Your task to perform on an android device: Search for seafood restaurants on Google Maps Image 0: 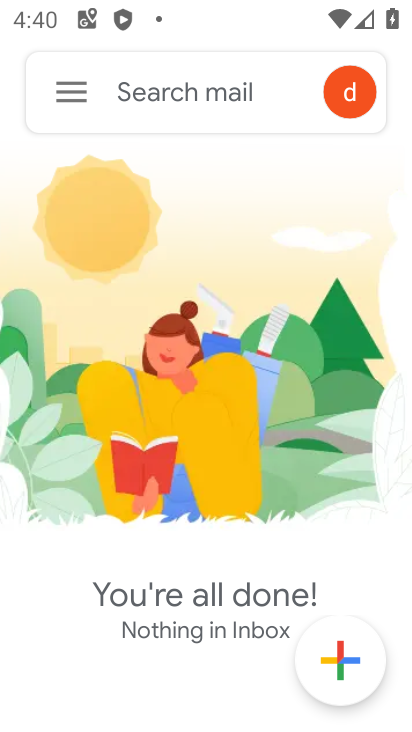
Step 0: press home button
Your task to perform on an android device: Search for seafood restaurants on Google Maps Image 1: 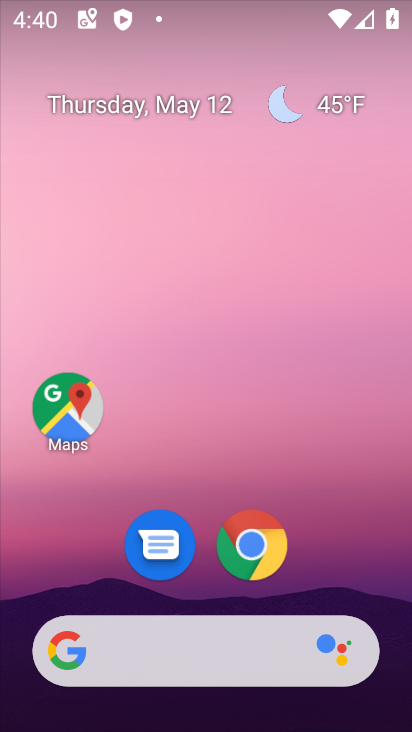
Step 1: click (48, 400)
Your task to perform on an android device: Search for seafood restaurants on Google Maps Image 2: 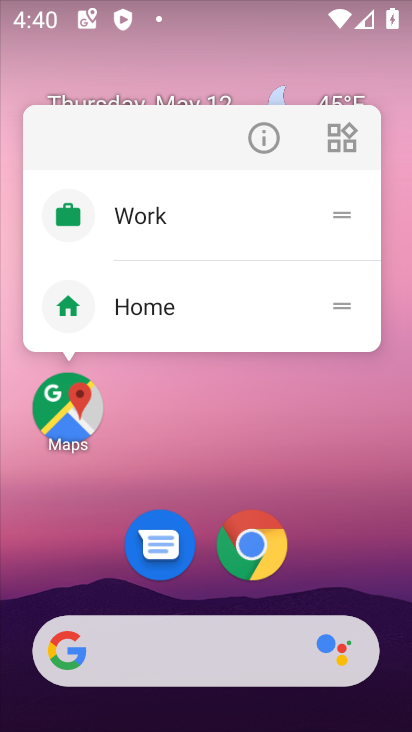
Step 2: click (61, 409)
Your task to perform on an android device: Search for seafood restaurants on Google Maps Image 3: 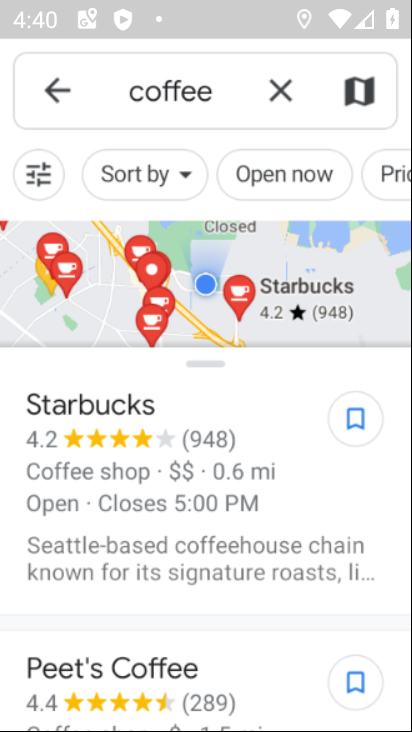
Step 3: click (213, 88)
Your task to perform on an android device: Search for seafood restaurants on Google Maps Image 4: 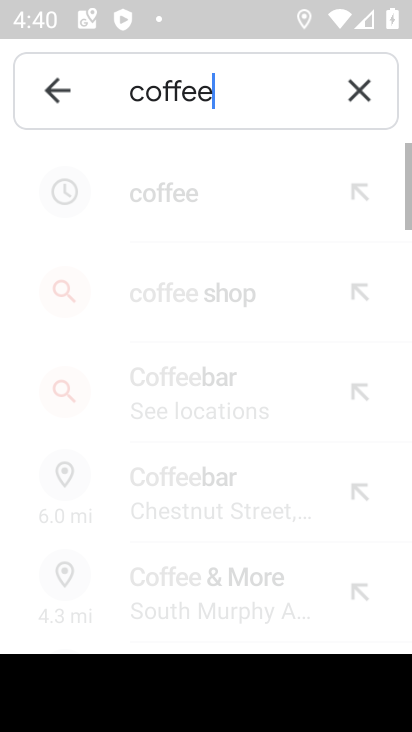
Step 4: click (363, 87)
Your task to perform on an android device: Search for seafood restaurants on Google Maps Image 5: 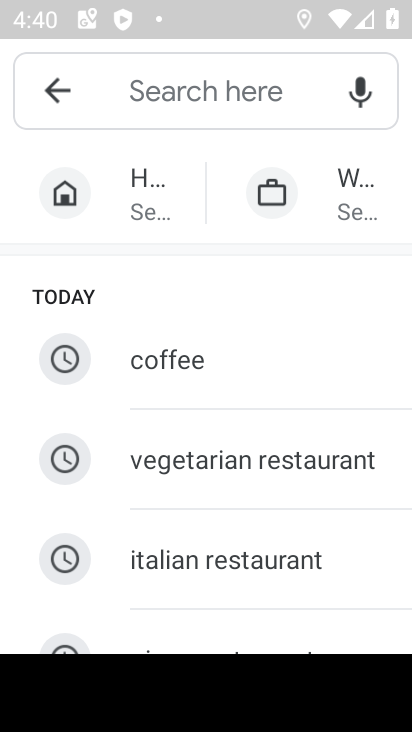
Step 5: type "seafood restaurants"
Your task to perform on an android device: Search for seafood restaurants on Google Maps Image 6: 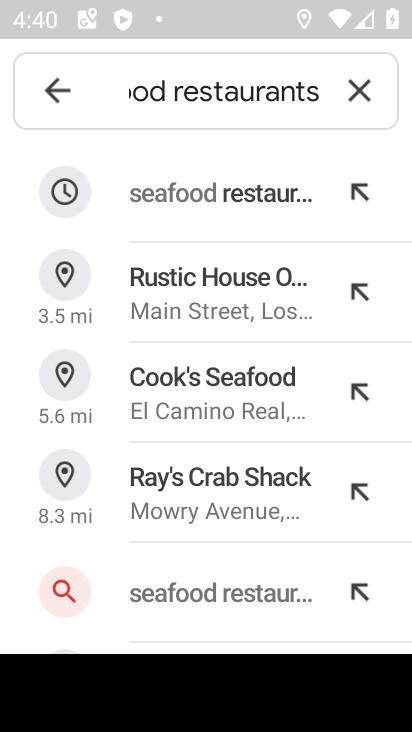
Step 6: press enter
Your task to perform on an android device: Search for seafood restaurants on Google Maps Image 7: 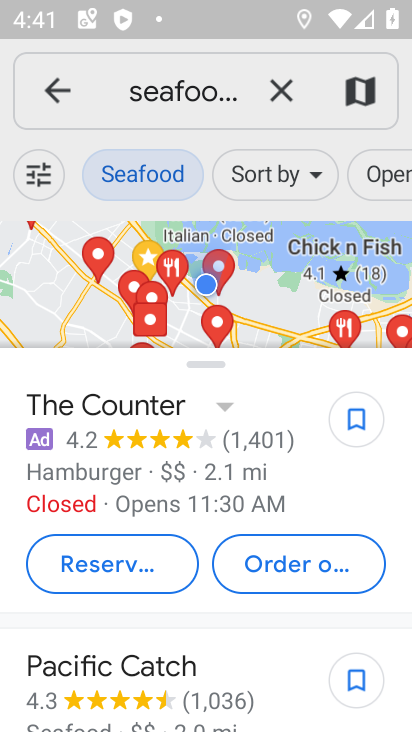
Step 7: task complete